Your task to perform on an android device: allow notifications from all sites in the chrome app Image 0: 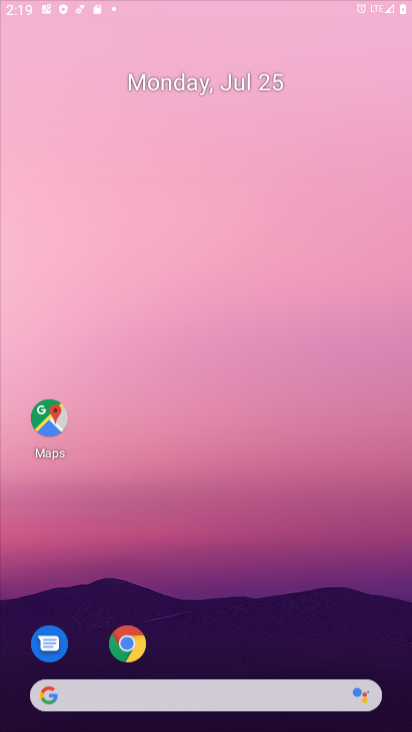
Step 0: drag from (352, 522) to (182, 52)
Your task to perform on an android device: allow notifications from all sites in the chrome app Image 1: 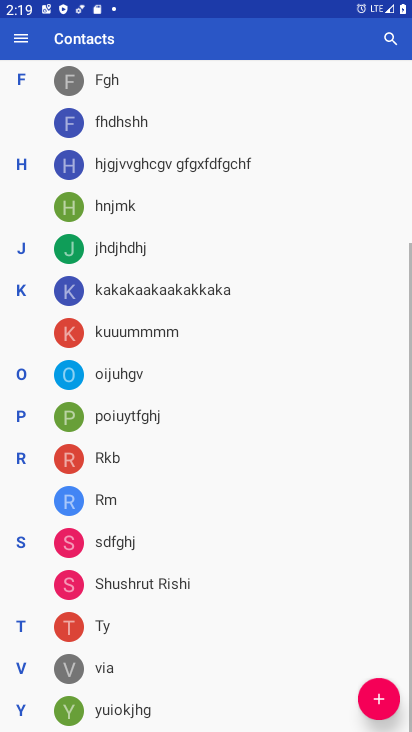
Step 1: press home button
Your task to perform on an android device: allow notifications from all sites in the chrome app Image 2: 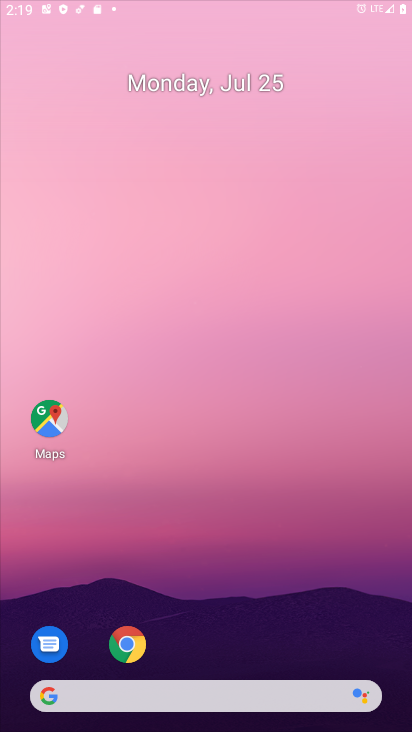
Step 2: drag from (392, 689) to (213, 25)
Your task to perform on an android device: allow notifications from all sites in the chrome app Image 3: 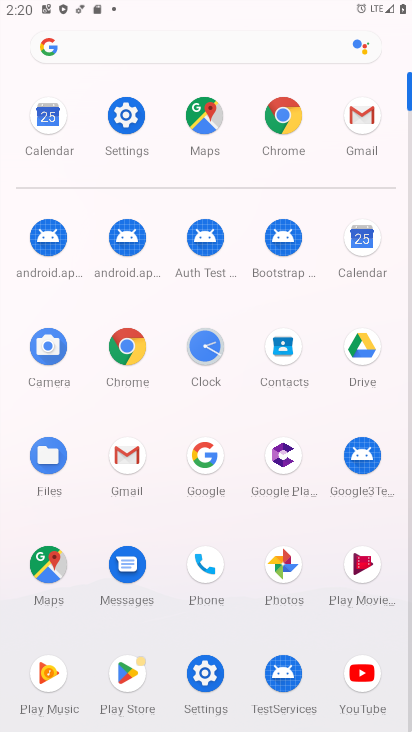
Step 3: click (133, 345)
Your task to perform on an android device: allow notifications from all sites in the chrome app Image 4: 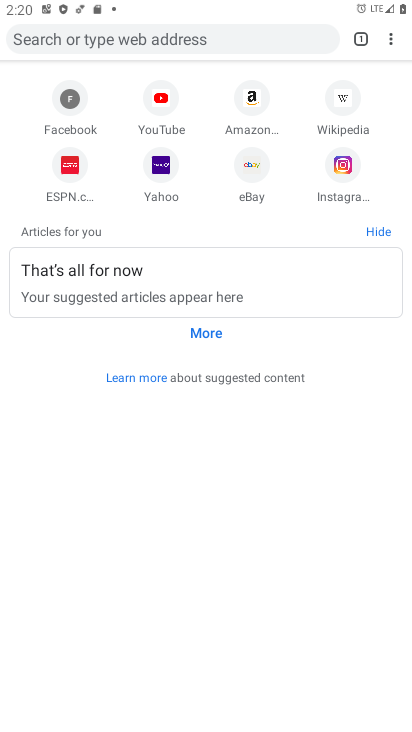
Step 4: click (387, 39)
Your task to perform on an android device: allow notifications from all sites in the chrome app Image 5: 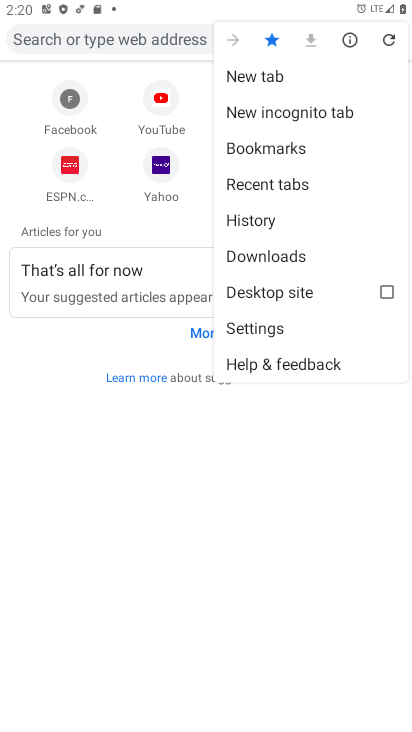
Step 5: click (253, 331)
Your task to perform on an android device: allow notifications from all sites in the chrome app Image 6: 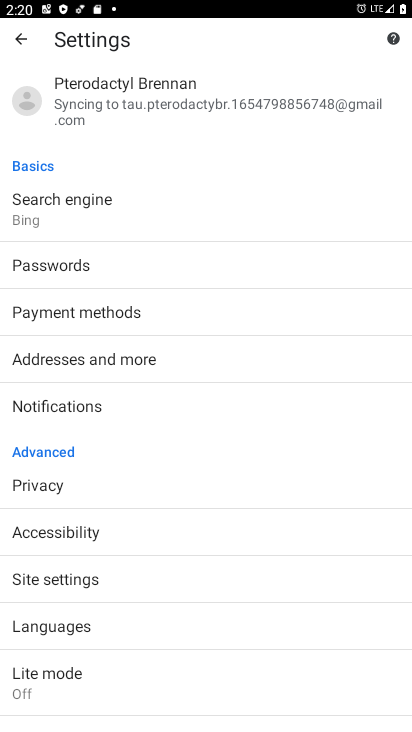
Step 6: click (103, 397)
Your task to perform on an android device: allow notifications from all sites in the chrome app Image 7: 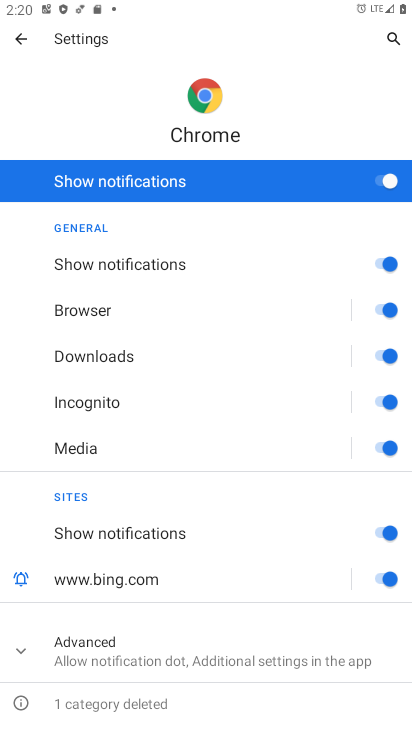
Step 7: task complete